Your task to perform on an android device: Go to display settings Image 0: 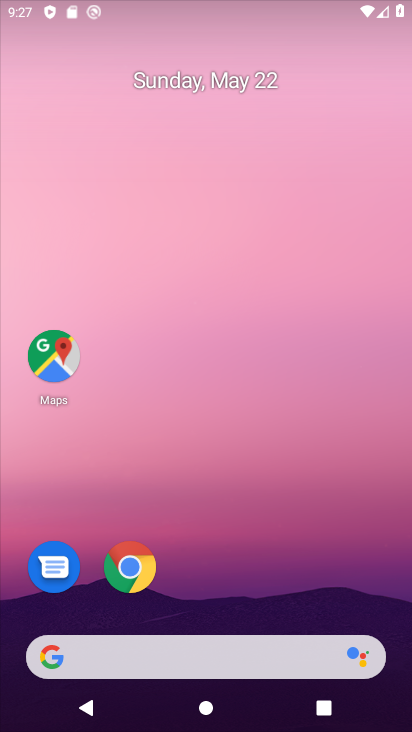
Step 0: drag from (255, 356) to (255, 284)
Your task to perform on an android device: Go to display settings Image 1: 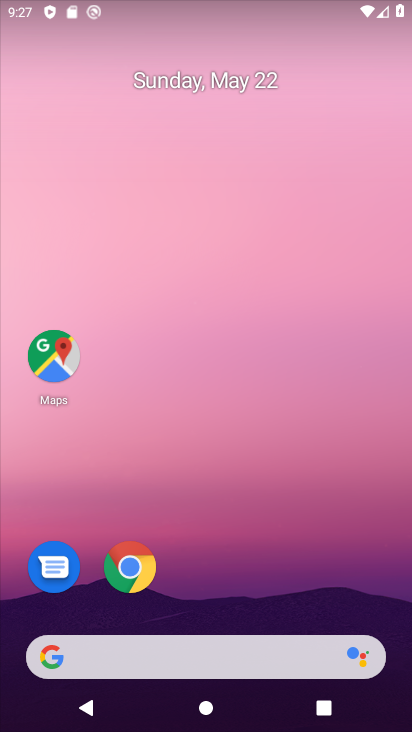
Step 1: drag from (212, 629) to (235, 293)
Your task to perform on an android device: Go to display settings Image 2: 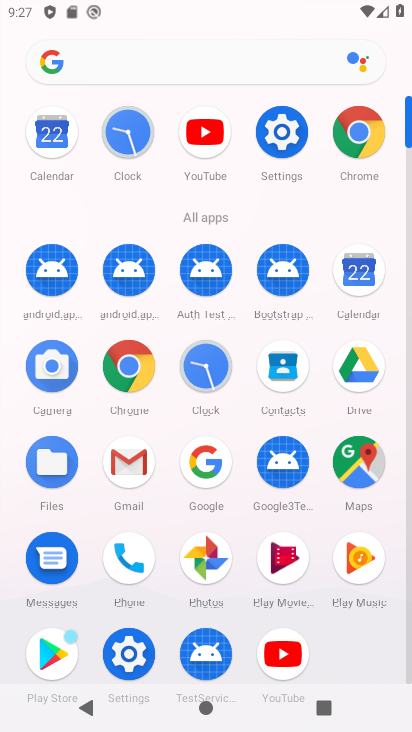
Step 2: click (277, 139)
Your task to perform on an android device: Go to display settings Image 3: 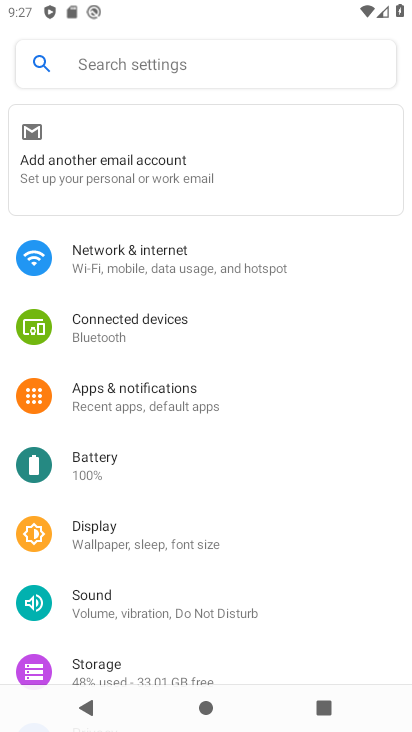
Step 3: click (124, 523)
Your task to perform on an android device: Go to display settings Image 4: 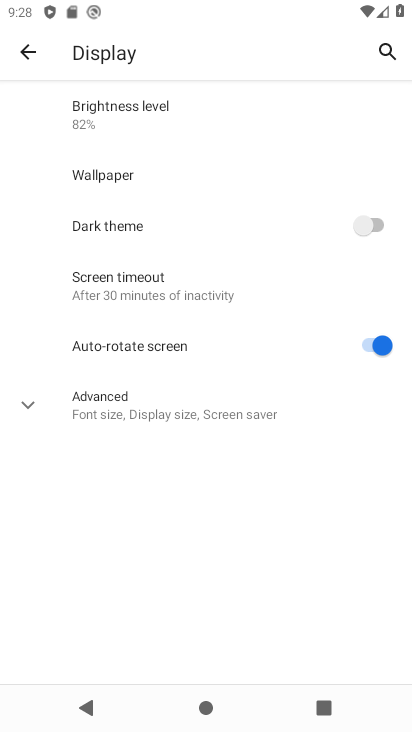
Step 4: task complete